Your task to perform on an android device: move a message to another label in the gmail app Image 0: 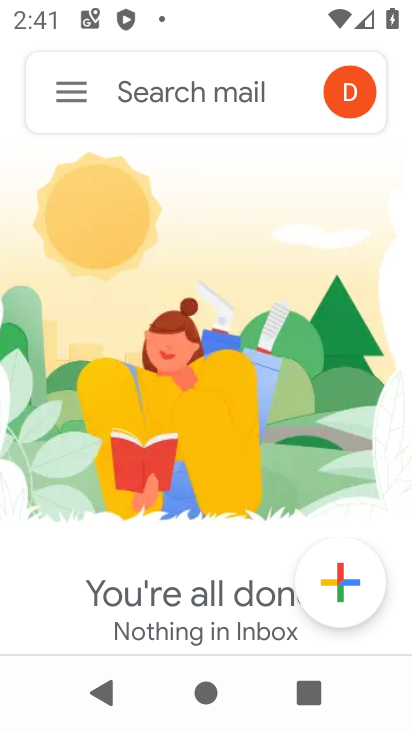
Step 0: press back button
Your task to perform on an android device: move a message to another label in the gmail app Image 1: 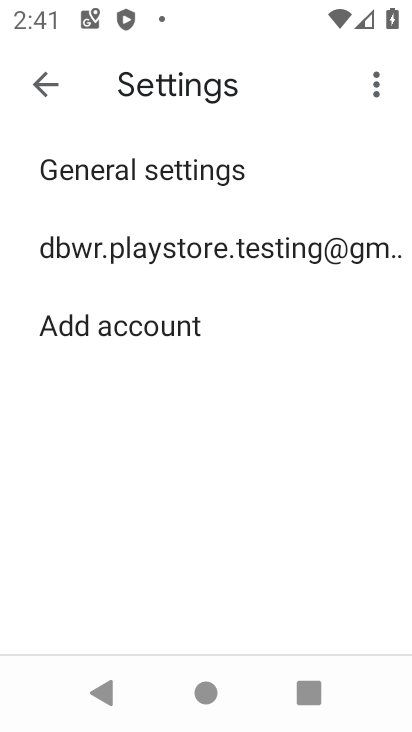
Step 1: click (42, 78)
Your task to perform on an android device: move a message to another label in the gmail app Image 2: 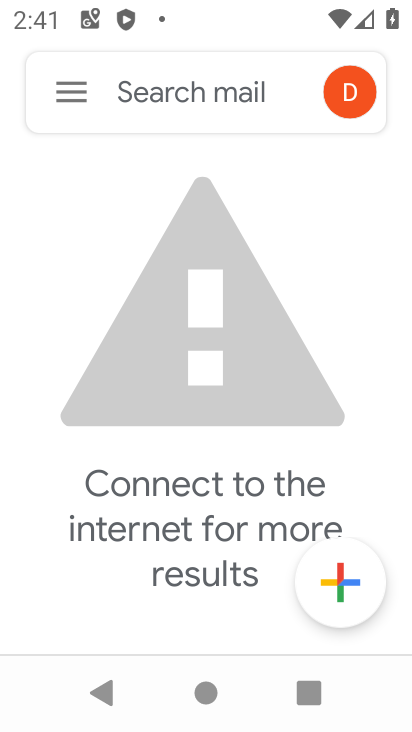
Step 2: click (56, 102)
Your task to perform on an android device: move a message to another label in the gmail app Image 3: 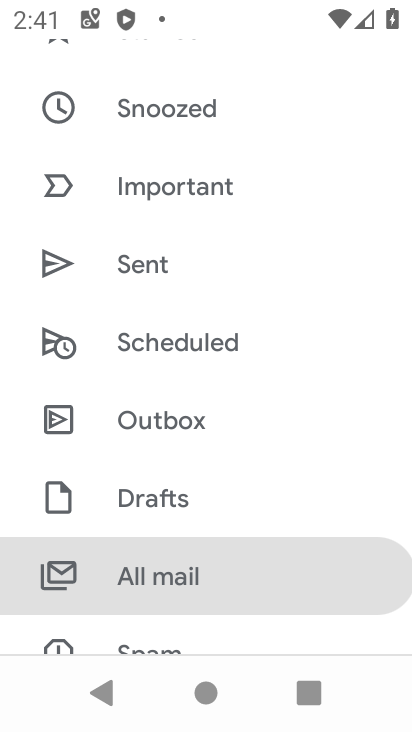
Step 3: click (155, 576)
Your task to perform on an android device: move a message to another label in the gmail app Image 4: 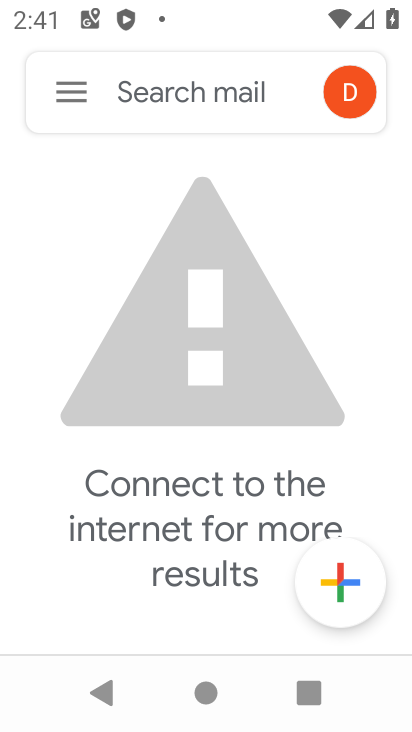
Step 4: task complete